Your task to perform on an android device: set an alarm Image 0: 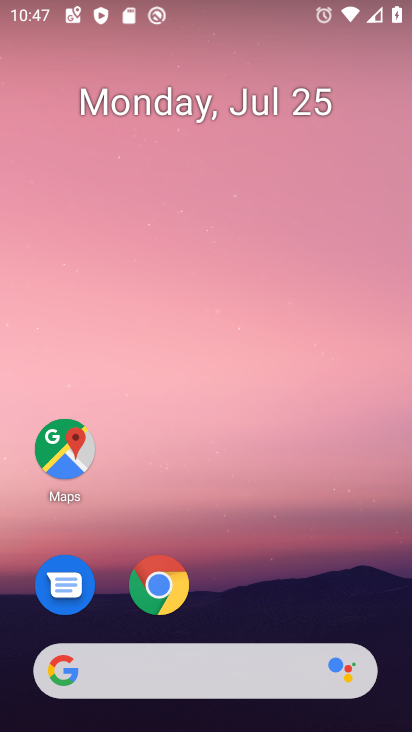
Step 0: drag from (231, 638) to (204, 79)
Your task to perform on an android device: set an alarm Image 1: 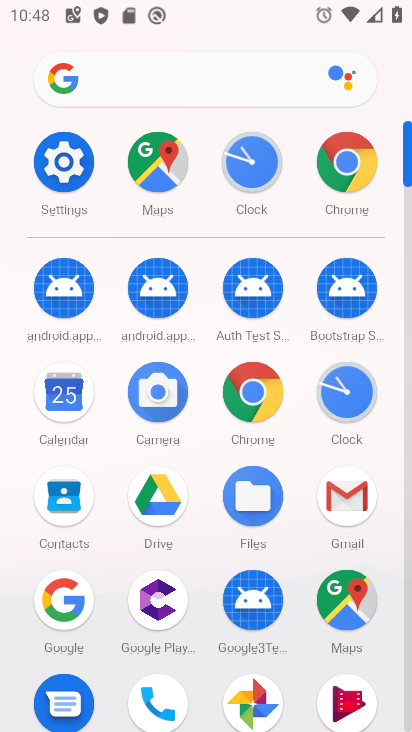
Step 1: click (338, 403)
Your task to perform on an android device: set an alarm Image 2: 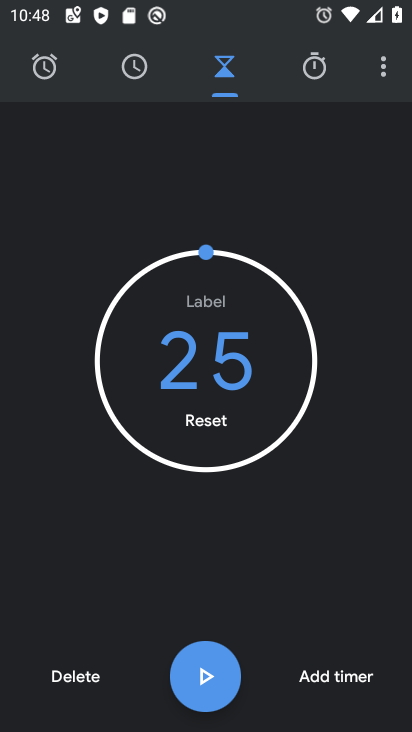
Step 2: click (37, 85)
Your task to perform on an android device: set an alarm Image 3: 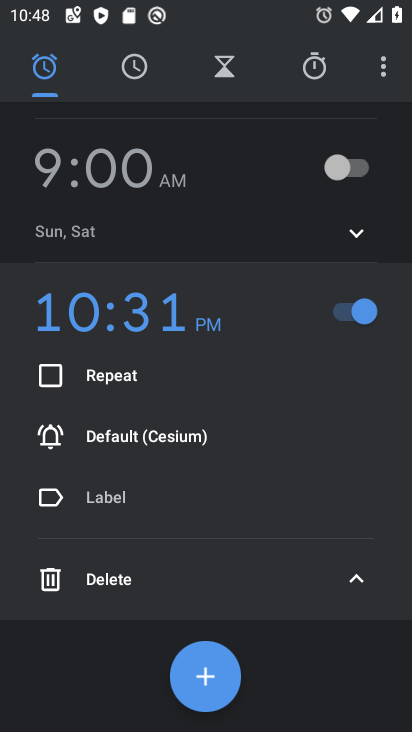
Step 3: click (225, 699)
Your task to perform on an android device: set an alarm Image 4: 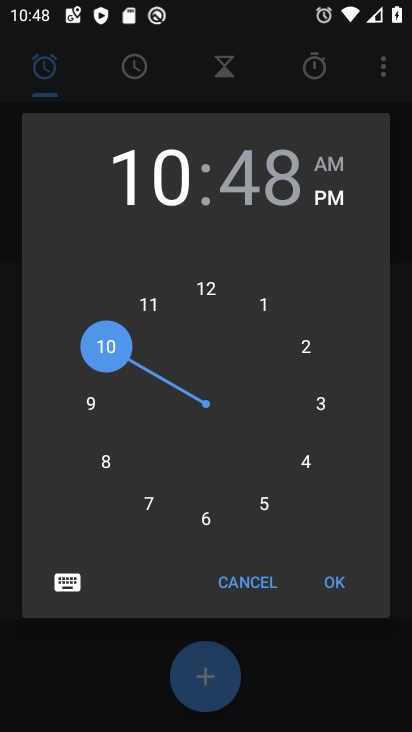
Step 4: click (342, 583)
Your task to perform on an android device: set an alarm Image 5: 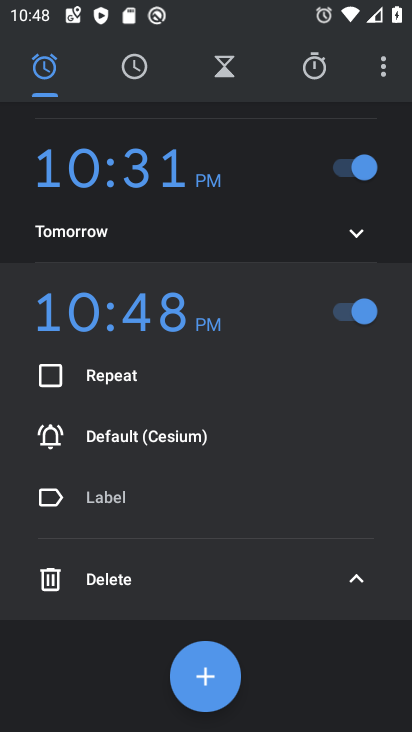
Step 5: task complete